Your task to perform on an android device: toggle notification dots Image 0: 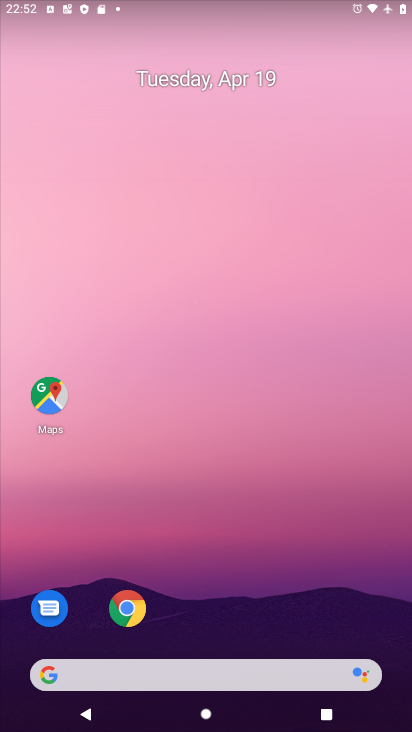
Step 0: drag from (372, 619) to (356, 115)
Your task to perform on an android device: toggle notification dots Image 1: 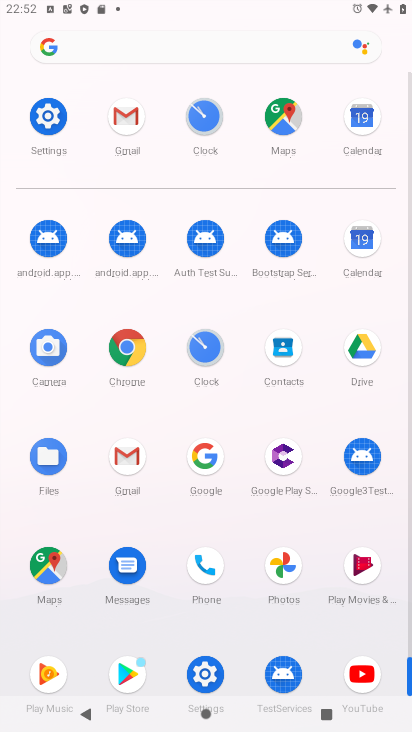
Step 1: click (205, 676)
Your task to perform on an android device: toggle notification dots Image 2: 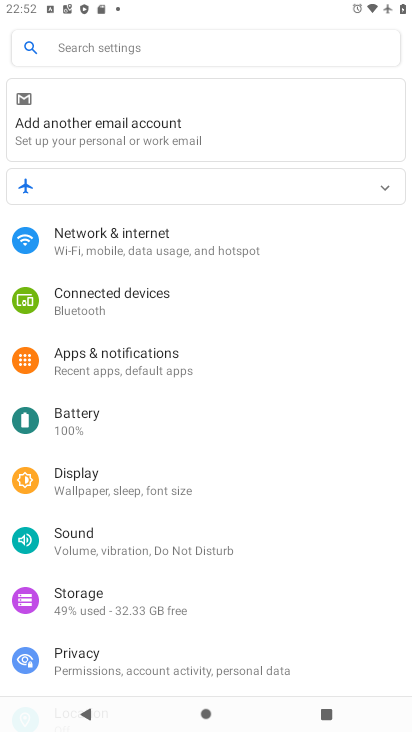
Step 2: click (132, 355)
Your task to perform on an android device: toggle notification dots Image 3: 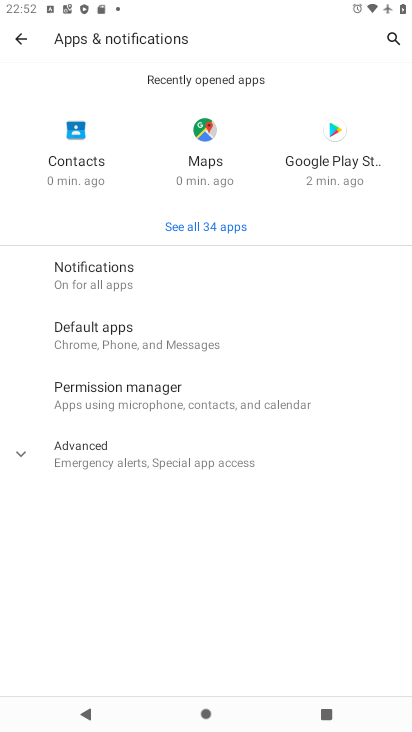
Step 3: click (95, 270)
Your task to perform on an android device: toggle notification dots Image 4: 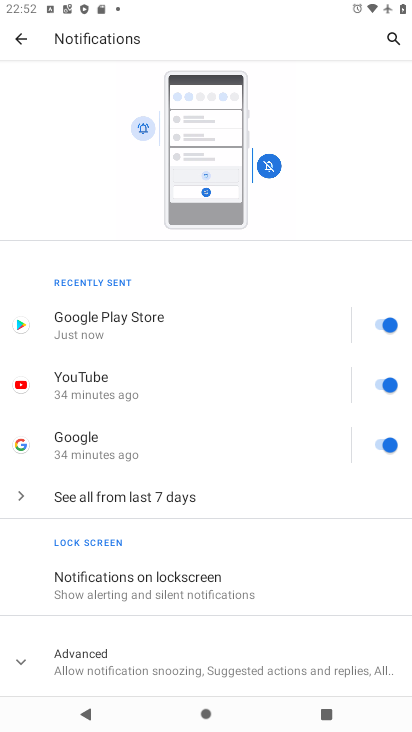
Step 4: drag from (272, 621) to (306, 235)
Your task to perform on an android device: toggle notification dots Image 5: 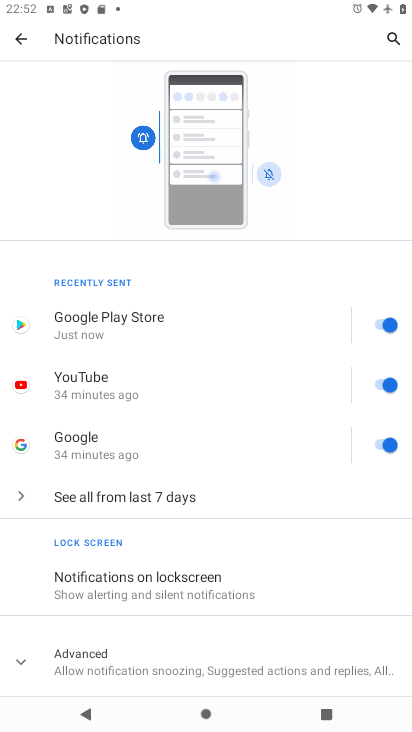
Step 5: click (22, 661)
Your task to perform on an android device: toggle notification dots Image 6: 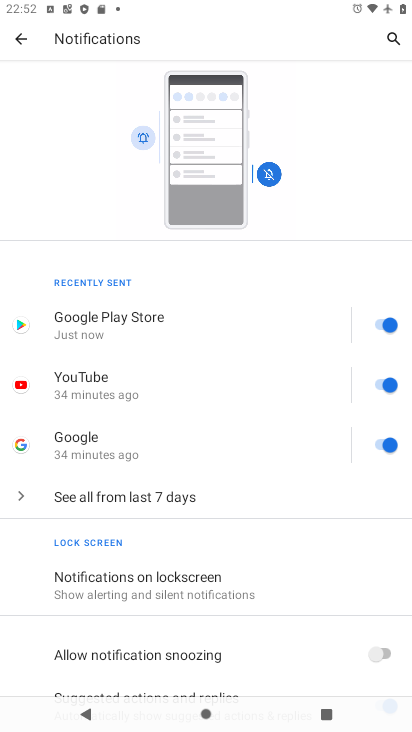
Step 6: drag from (301, 646) to (252, 254)
Your task to perform on an android device: toggle notification dots Image 7: 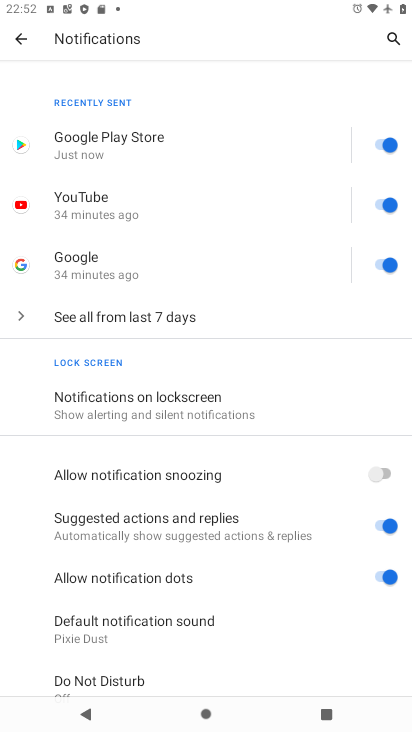
Step 7: click (377, 576)
Your task to perform on an android device: toggle notification dots Image 8: 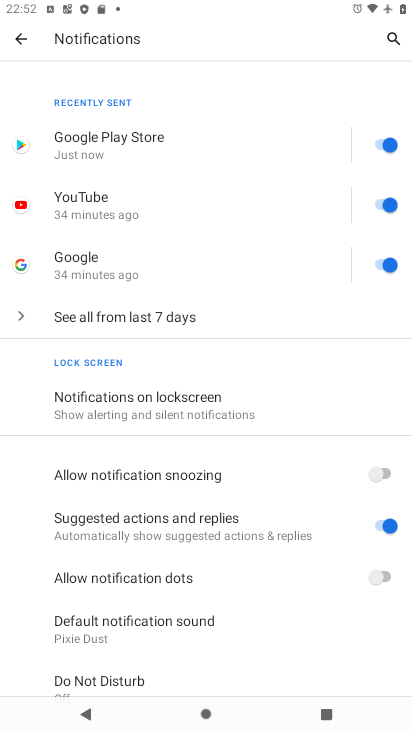
Step 8: task complete